Your task to perform on an android device: turn off improve location accuracy Image 0: 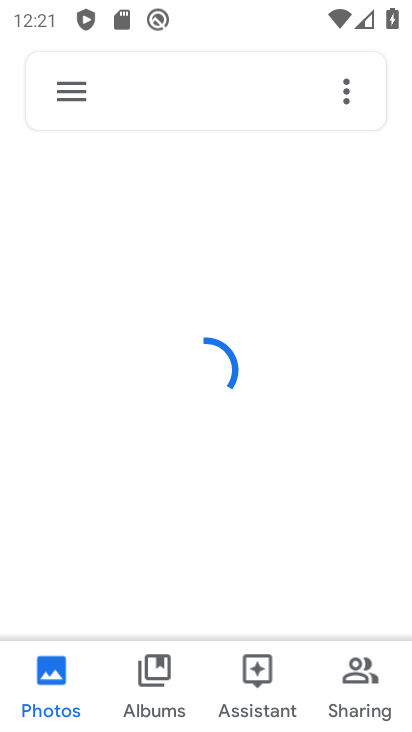
Step 0: press home button
Your task to perform on an android device: turn off improve location accuracy Image 1: 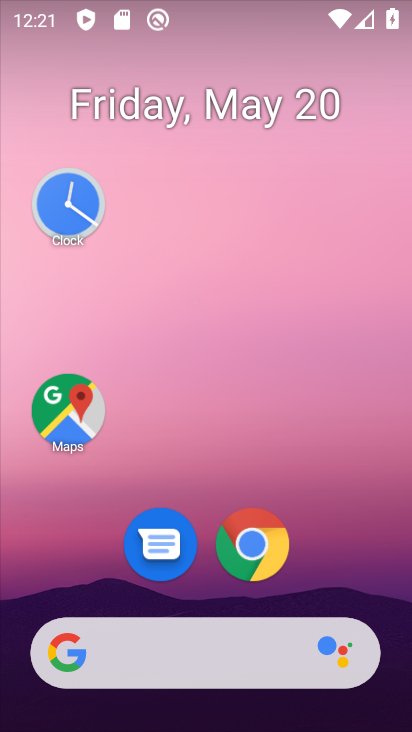
Step 1: drag from (336, 542) to (288, 151)
Your task to perform on an android device: turn off improve location accuracy Image 2: 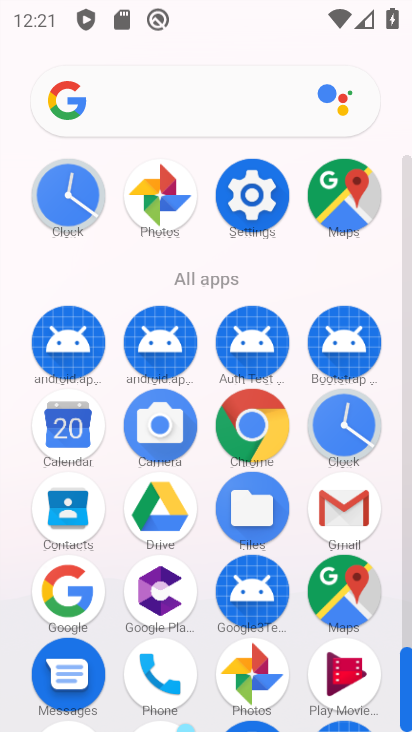
Step 2: drag from (249, 197) to (185, 183)
Your task to perform on an android device: turn off improve location accuracy Image 3: 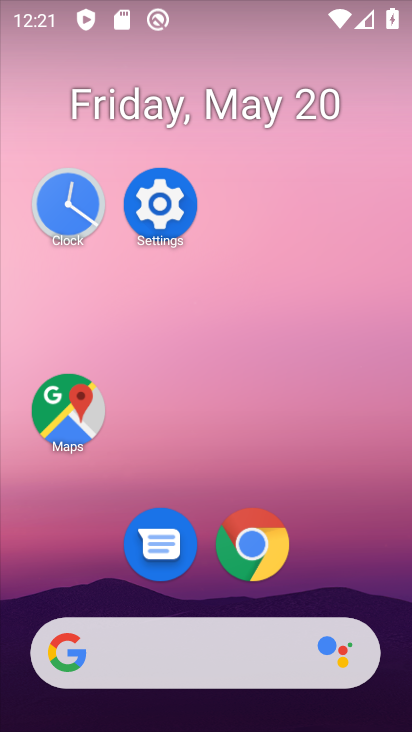
Step 3: click (162, 203)
Your task to perform on an android device: turn off improve location accuracy Image 4: 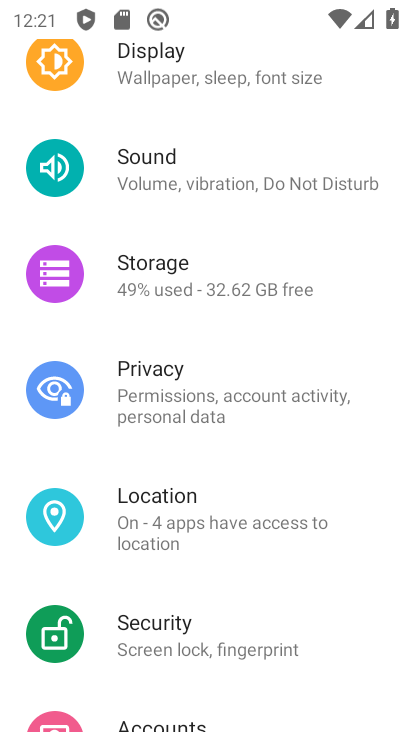
Step 4: drag from (263, 613) to (248, 316)
Your task to perform on an android device: turn off improve location accuracy Image 5: 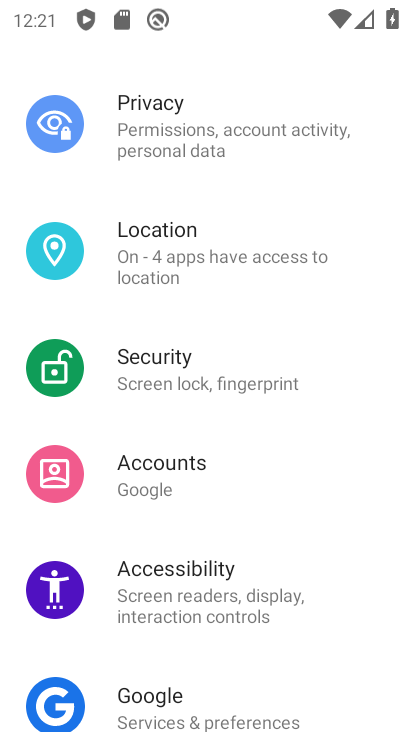
Step 5: click (238, 250)
Your task to perform on an android device: turn off improve location accuracy Image 6: 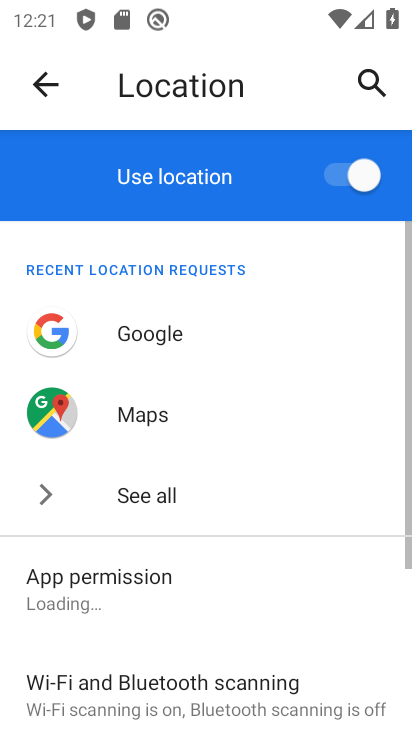
Step 6: drag from (255, 615) to (224, 224)
Your task to perform on an android device: turn off improve location accuracy Image 7: 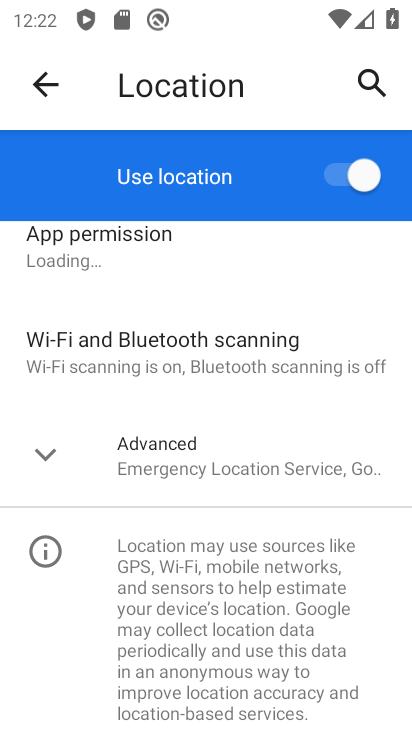
Step 7: click (168, 450)
Your task to perform on an android device: turn off improve location accuracy Image 8: 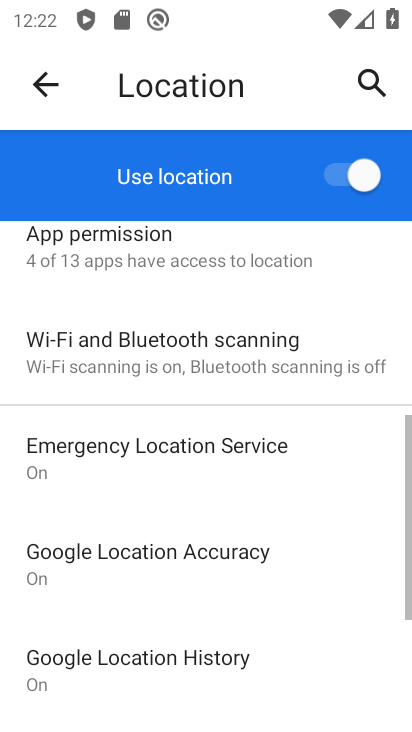
Step 8: drag from (187, 589) to (189, 221)
Your task to perform on an android device: turn off improve location accuracy Image 9: 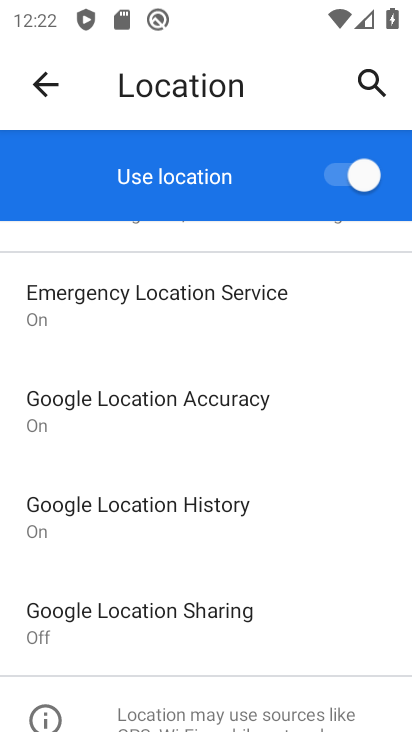
Step 9: click (209, 391)
Your task to perform on an android device: turn off improve location accuracy Image 10: 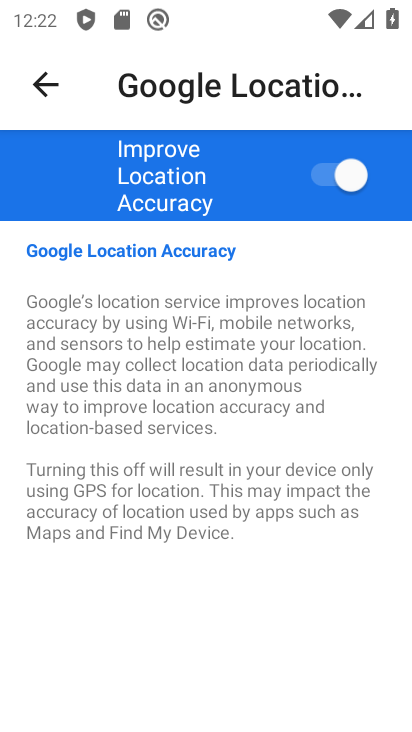
Step 10: click (336, 188)
Your task to perform on an android device: turn off improve location accuracy Image 11: 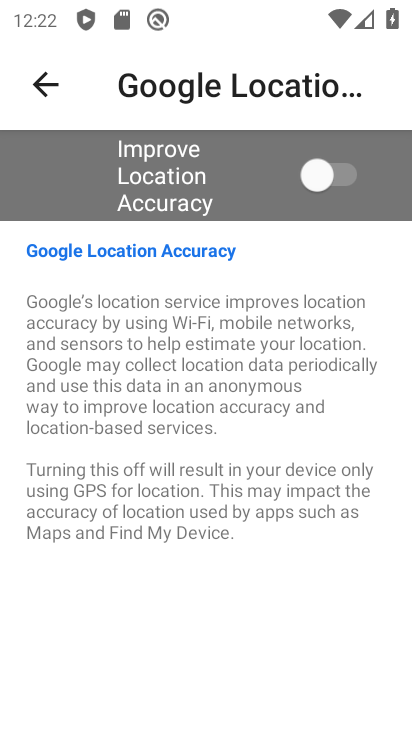
Step 11: task complete